Your task to perform on an android device: stop showing notifications on the lock screen Image 0: 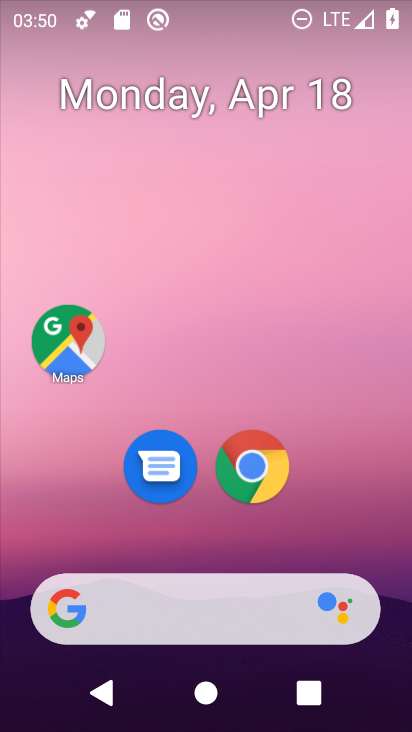
Step 0: drag from (310, 528) to (314, 179)
Your task to perform on an android device: stop showing notifications on the lock screen Image 1: 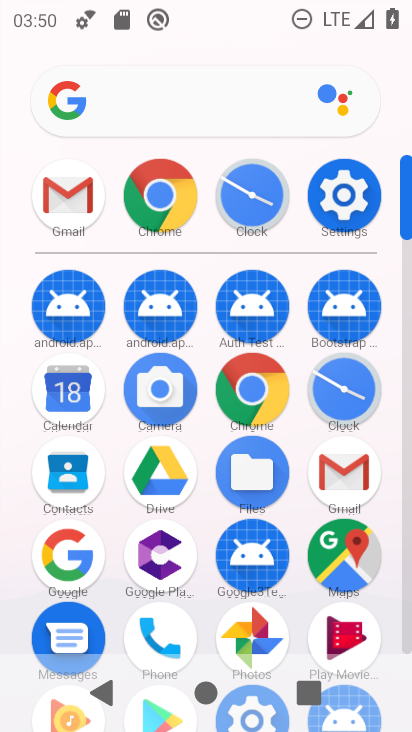
Step 1: click (336, 222)
Your task to perform on an android device: stop showing notifications on the lock screen Image 2: 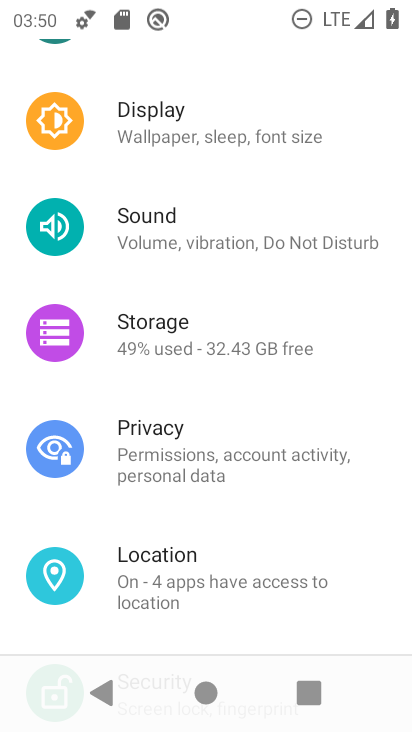
Step 2: drag from (236, 273) to (124, 517)
Your task to perform on an android device: stop showing notifications on the lock screen Image 3: 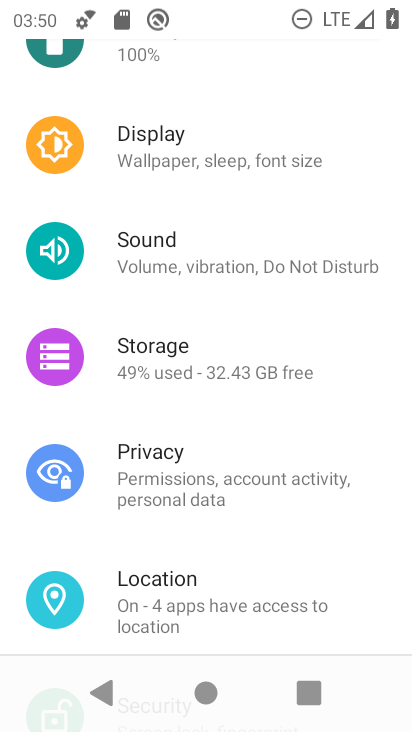
Step 3: drag from (152, 163) to (155, 707)
Your task to perform on an android device: stop showing notifications on the lock screen Image 4: 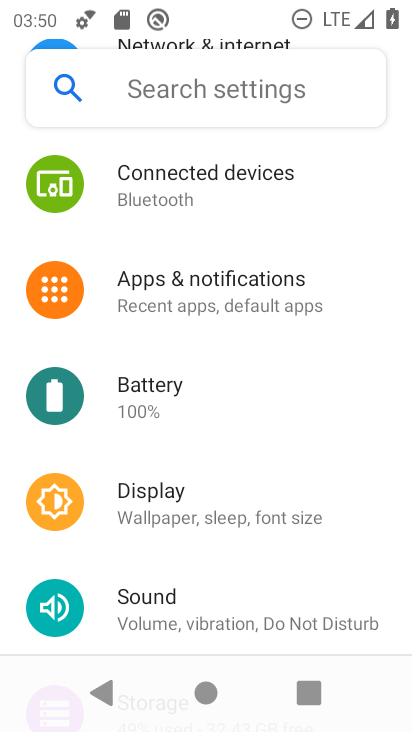
Step 4: click (199, 317)
Your task to perform on an android device: stop showing notifications on the lock screen Image 5: 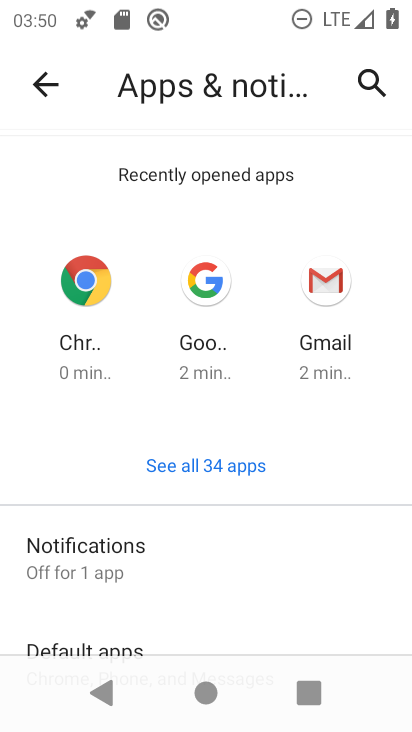
Step 5: drag from (286, 545) to (301, 255)
Your task to perform on an android device: stop showing notifications on the lock screen Image 6: 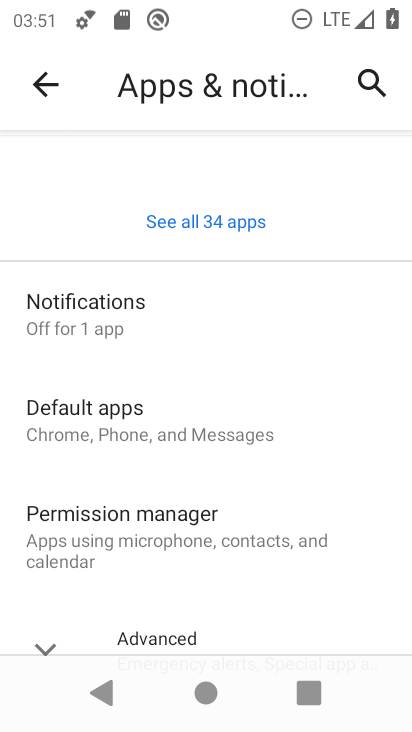
Step 6: drag from (254, 532) to (241, 337)
Your task to perform on an android device: stop showing notifications on the lock screen Image 7: 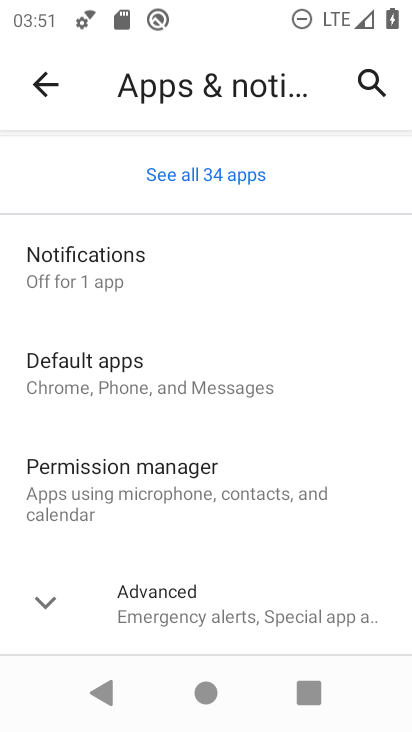
Step 7: click (247, 623)
Your task to perform on an android device: stop showing notifications on the lock screen Image 8: 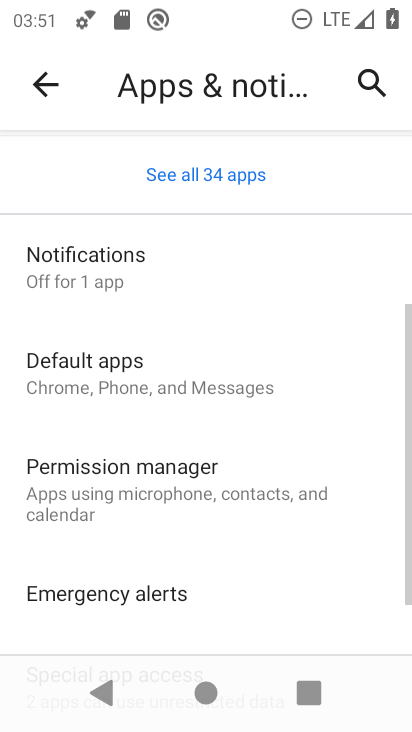
Step 8: click (212, 280)
Your task to perform on an android device: stop showing notifications on the lock screen Image 9: 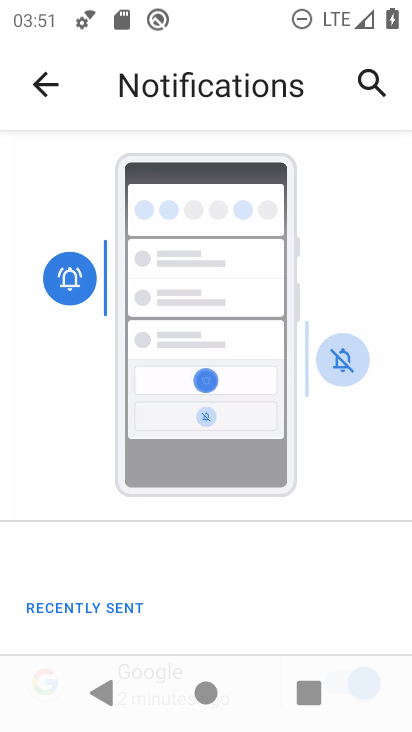
Step 9: drag from (305, 566) to (279, 336)
Your task to perform on an android device: stop showing notifications on the lock screen Image 10: 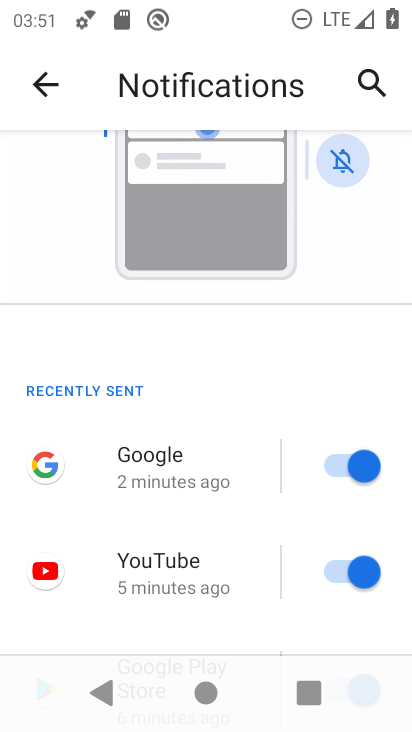
Step 10: drag from (234, 523) to (200, 210)
Your task to perform on an android device: stop showing notifications on the lock screen Image 11: 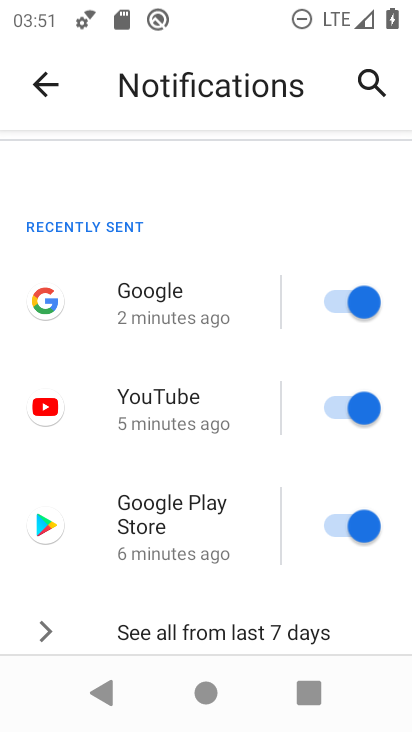
Step 11: drag from (119, 502) to (94, 210)
Your task to perform on an android device: stop showing notifications on the lock screen Image 12: 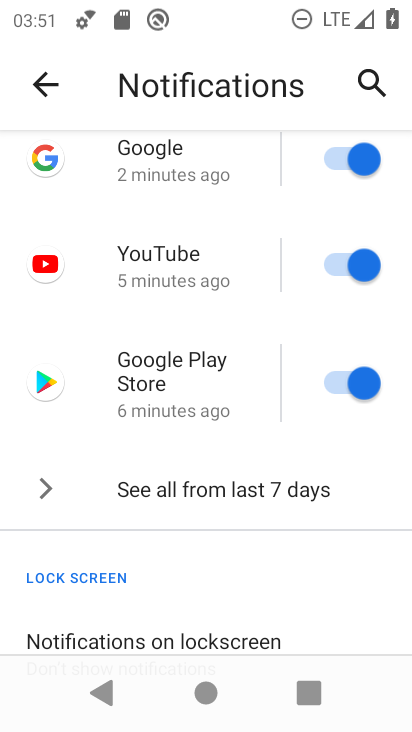
Step 12: drag from (190, 542) to (165, 393)
Your task to perform on an android device: stop showing notifications on the lock screen Image 13: 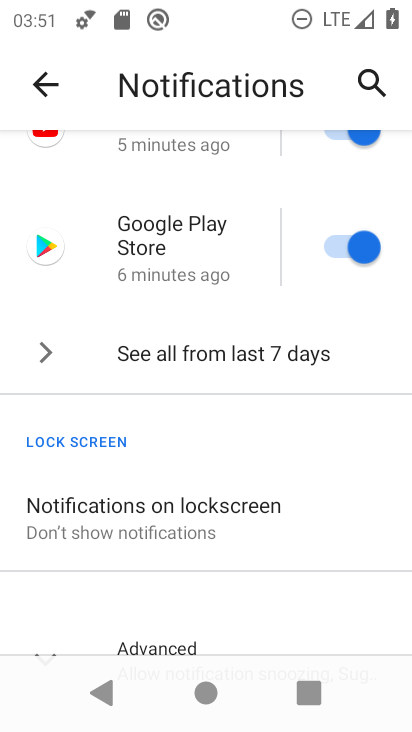
Step 13: click (212, 533)
Your task to perform on an android device: stop showing notifications on the lock screen Image 14: 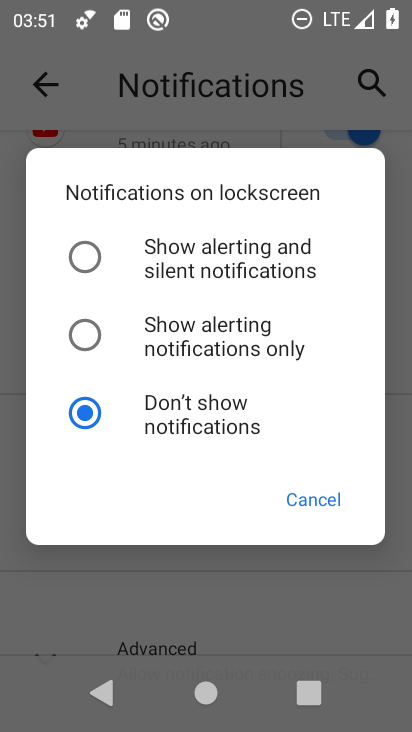
Step 14: task complete